Your task to perform on an android device: When is my next appointment? Image 0: 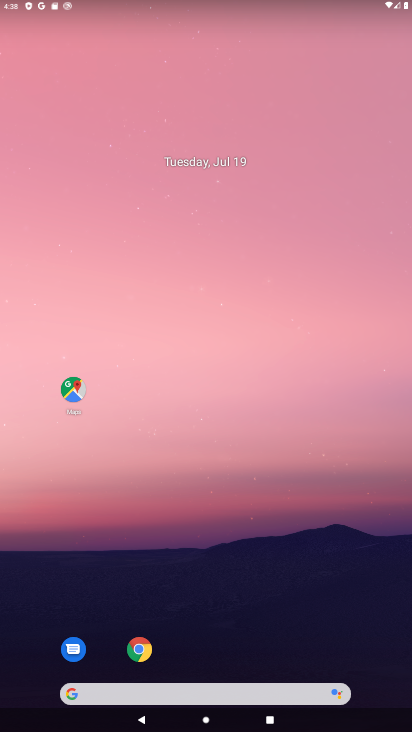
Step 0: drag from (238, 653) to (300, 157)
Your task to perform on an android device: When is my next appointment? Image 1: 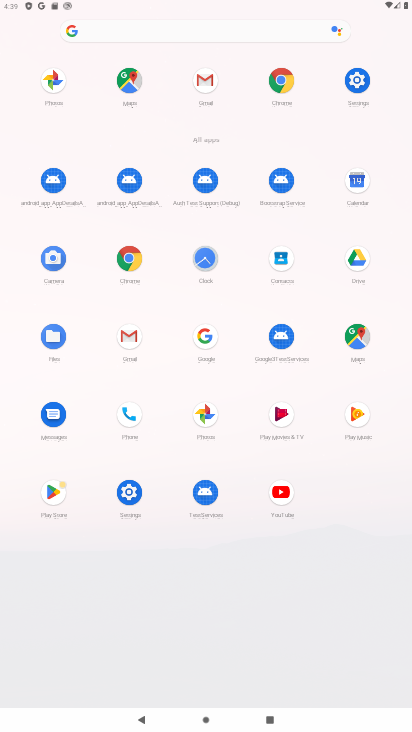
Step 1: click (357, 182)
Your task to perform on an android device: When is my next appointment? Image 2: 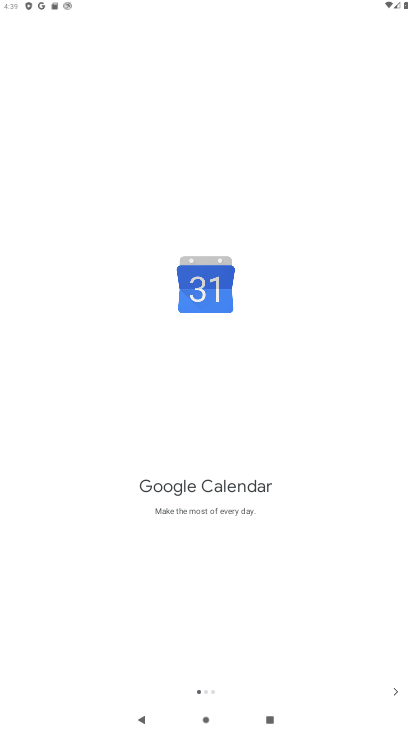
Step 2: click (386, 689)
Your task to perform on an android device: When is my next appointment? Image 3: 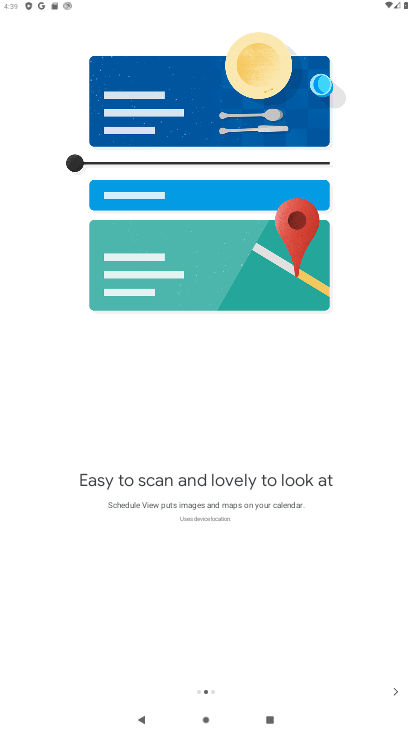
Step 3: click (386, 689)
Your task to perform on an android device: When is my next appointment? Image 4: 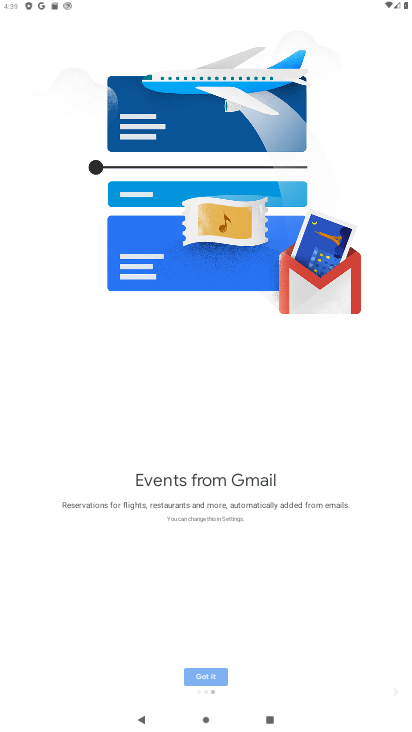
Step 4: click (386, 689)
Your task to perform on an android device: When is my next appointment? Image 5: 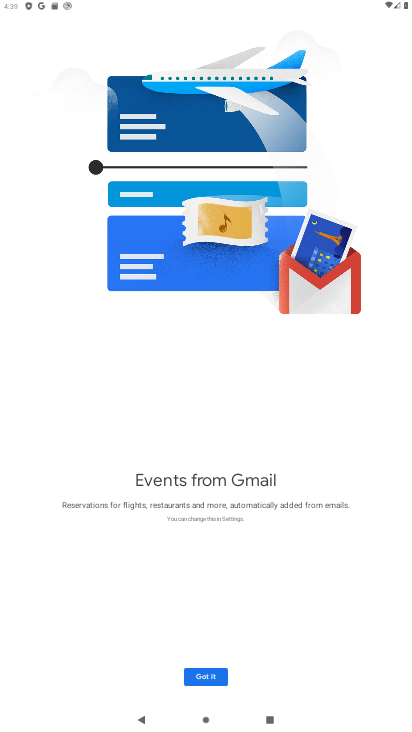
Step 5: click (214, 670)
Your task to perform on an android device: When is my next appointment? Image 6: 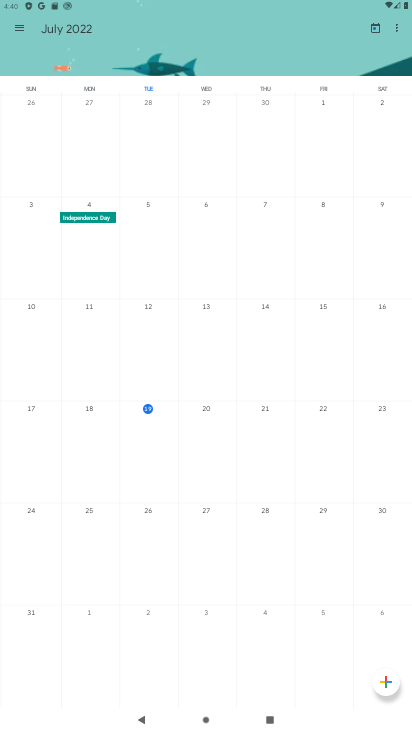
Step 6: click (18, 26)
Your task to perform on an android device: When is my next appointment? Image 7: 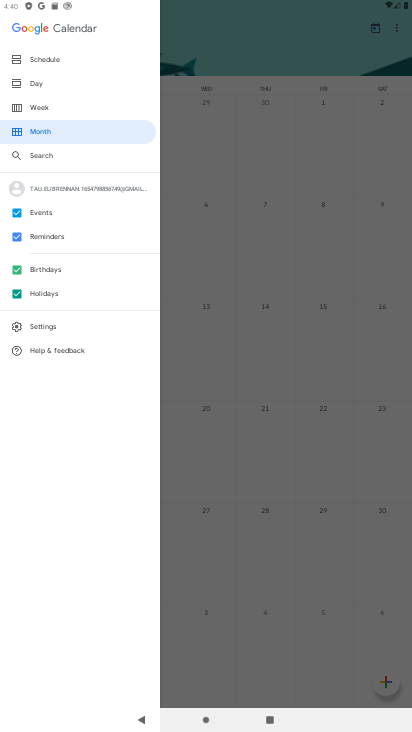
Step 7: click (37, 83)
Your task to perform on an android device: When is my next appointment? Image 8: 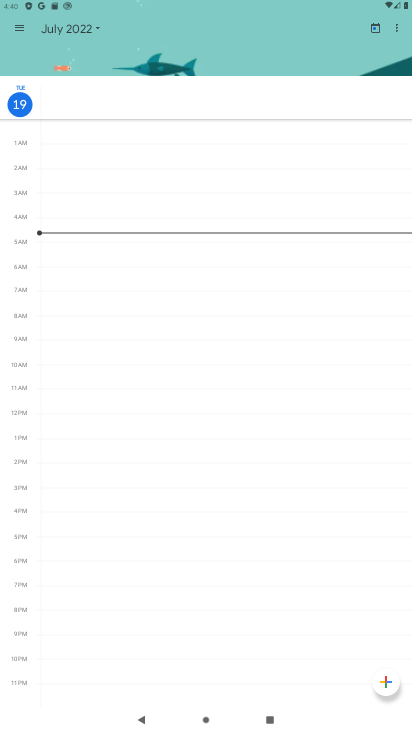
Step 8: click (11, 101)
Your task to perform on an android device: When is my next appointment? Image 9: 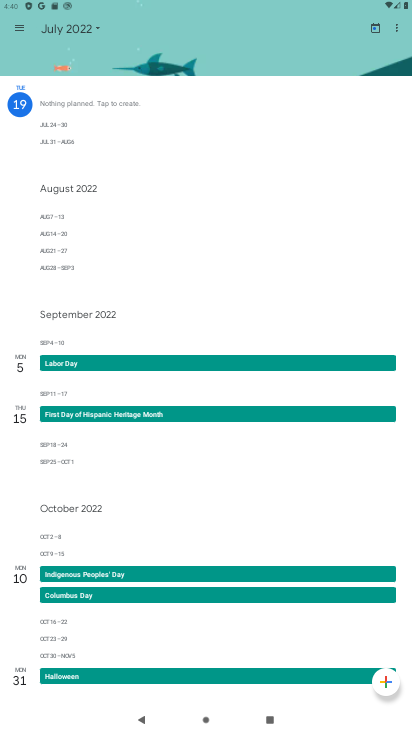
Step 9: task complete